Your task to perform on an android device: snooze an email in the gmail app Image 0: 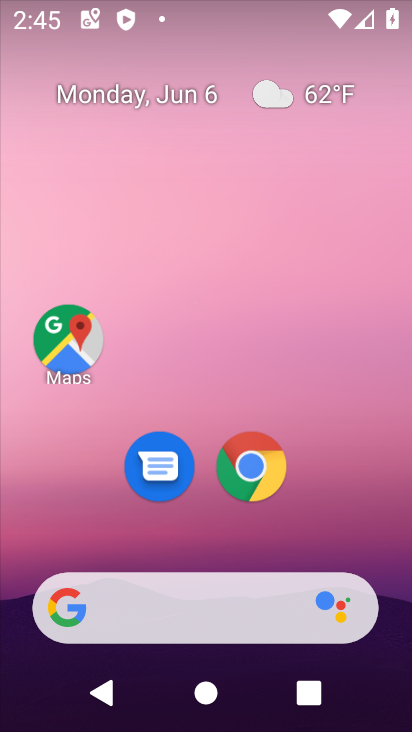
Step 0: drag from (258, 704) to (206, 148)
Your task to perform on an android device: snooze an email in the gmail app Image 1: 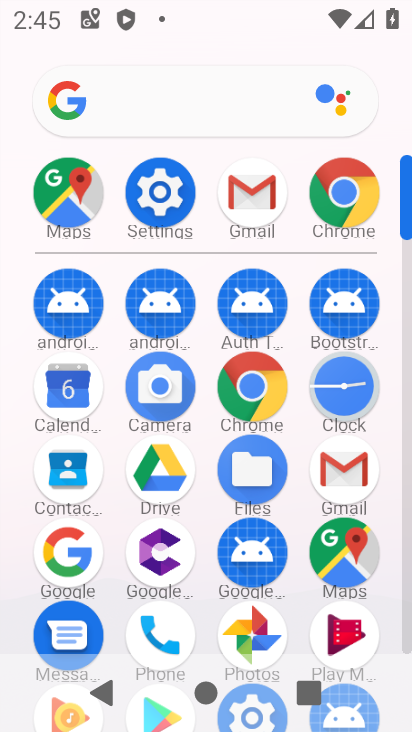
Step 1: click (357, 487)
Your task to perform on an android device: snooze an email in the gmail app Image 2: 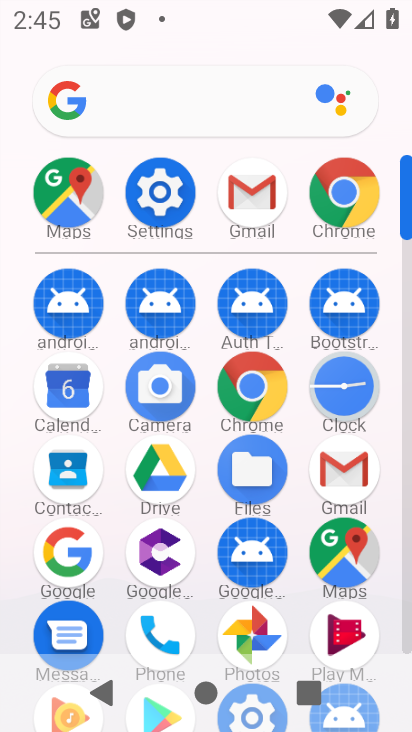
Step 2: click (356, 487)
Your task to perform on an android device: snooze an email in the gmail app Image 3: 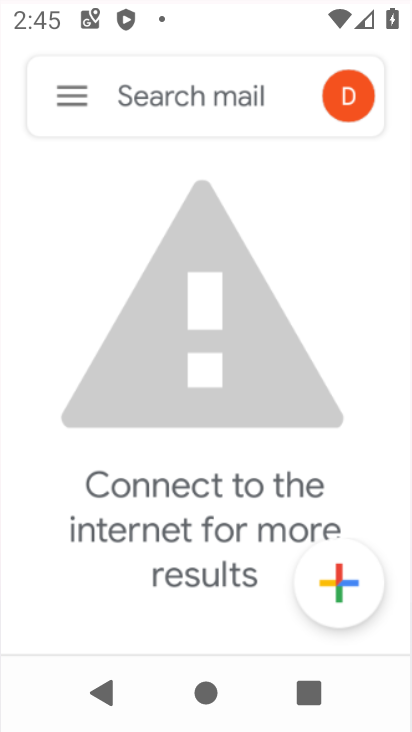
Step 3: click (358, 488)
Your task to perform on an android device: snooze an email in the gmail app Image 4: 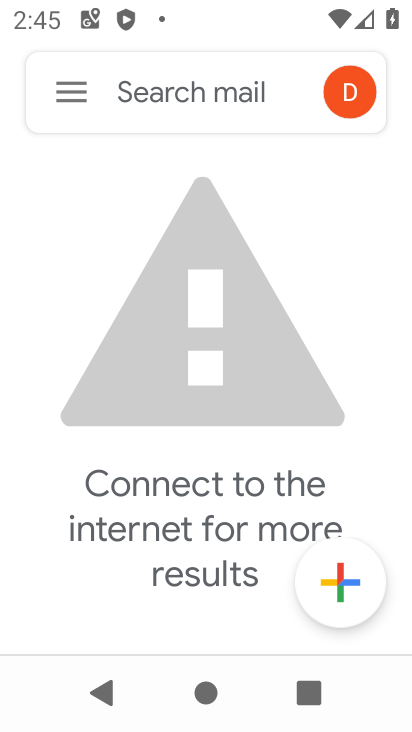
Step 4: click (329, 479)
Your task to perform on an android device: snooze an email in the gmail app Image 5: 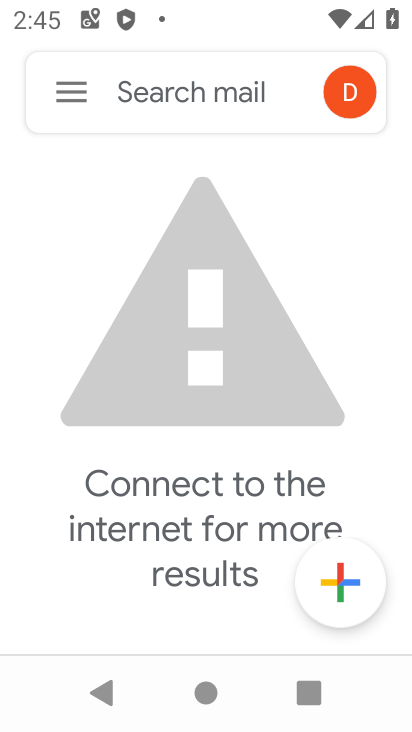
Step 5: click (70, 115)
Your task to perform on an android device: snooze an email in the gmail app Image 6: 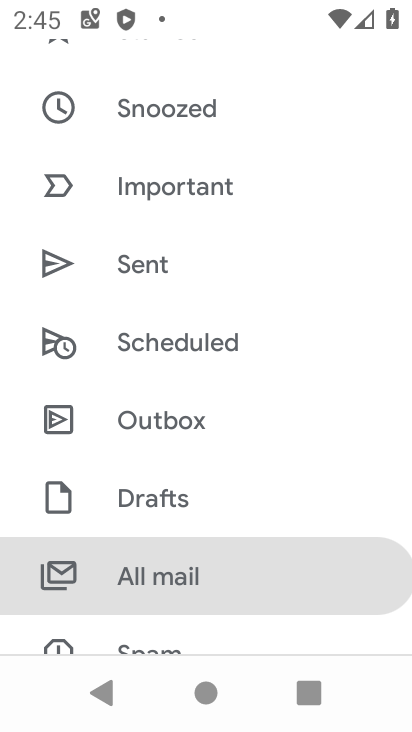
Step 6: click (190, 566)
Your task to perform on an android device: snooze an email in the gmail app Image 7: 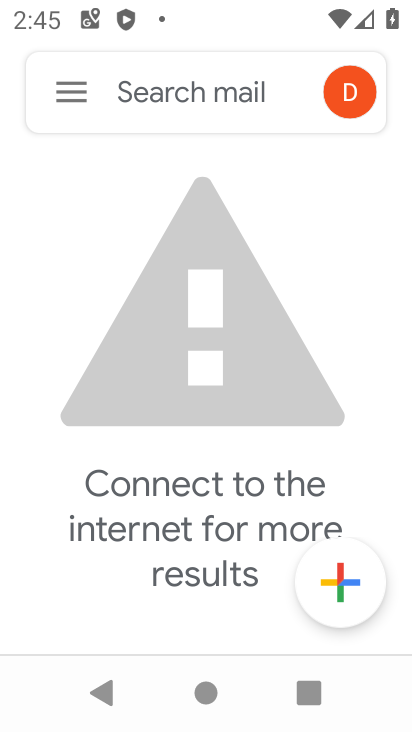
Step 7: task complete